Your task to perform on an android device: Go to notification settings Image 0: 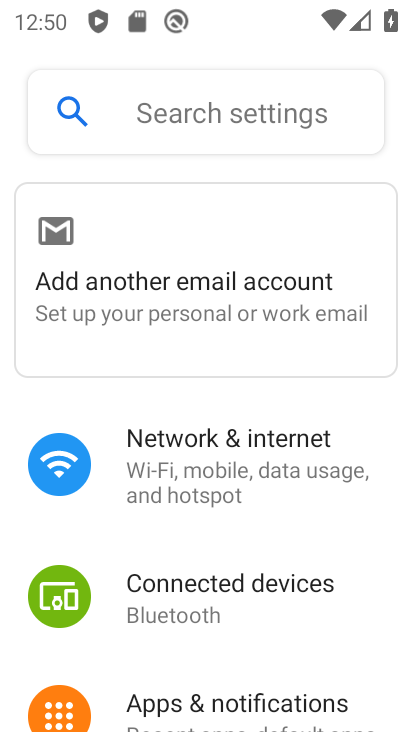
Step 0: click (229, 714)
Your task to perform on an android device: Go to notification settings Image 1: 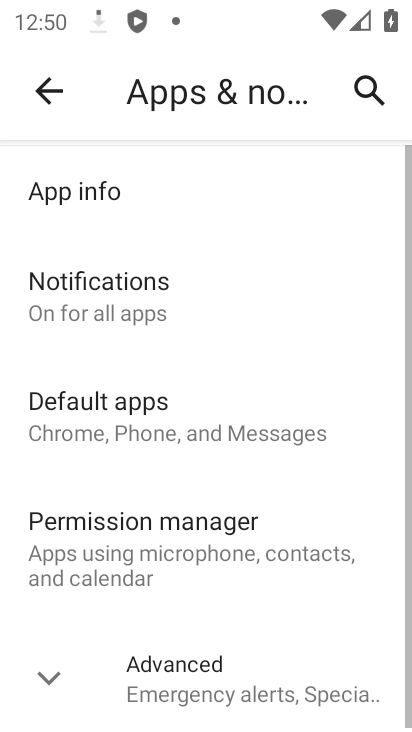
Step 1: click (220, 682)
Your task to perform on an android device: Go to notification settings Image 2: 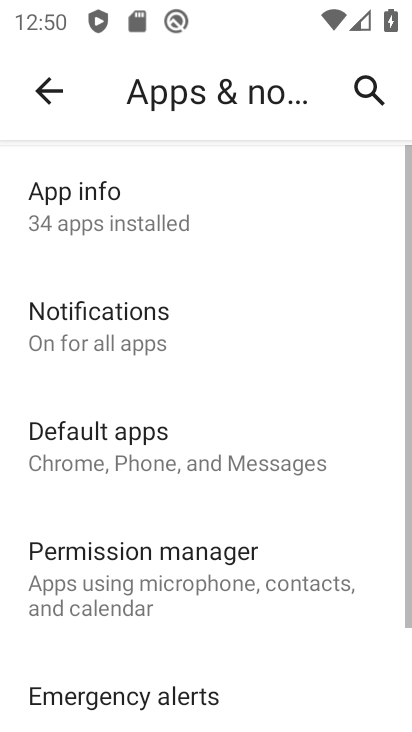
Step 2: task complete